Your task to perform on an android device: Open settings Image 0: 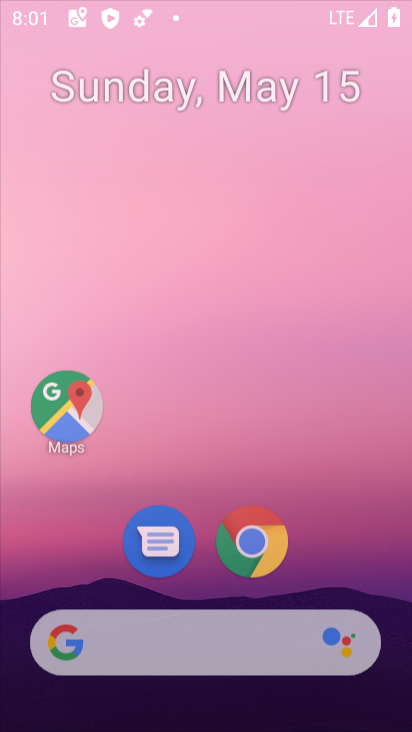
Step 0: drag from (315, 566) to (317, 251)
Your task to perform on an android device: Open settings Image 1: 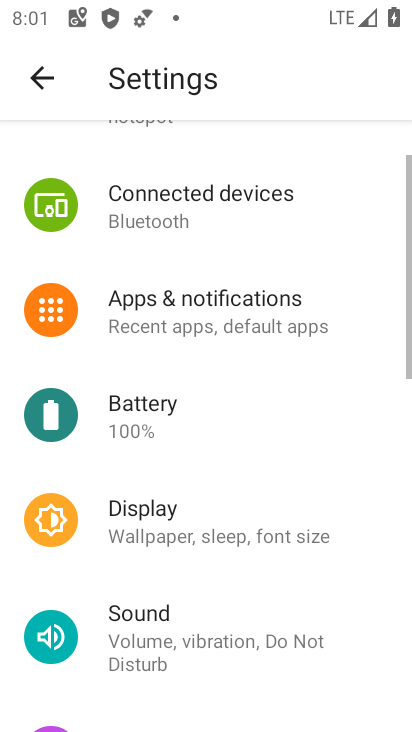
Step 1: task complete